Your task to perform on an android device: What's the US dollar exchange rate against the Brazilian Real? Image 0: 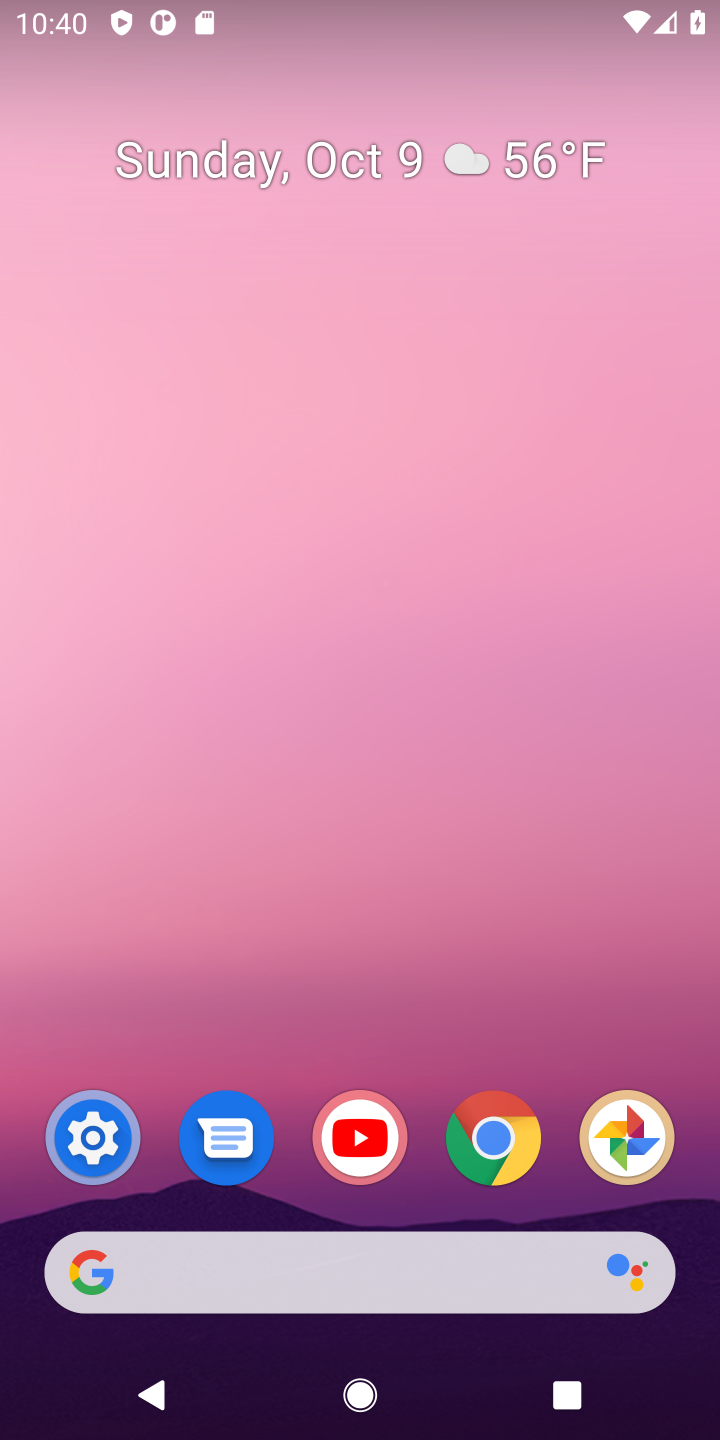
Step 0: drag from (368, 1057) to (714, 33)
Your task to perform on an android device: What's the US dollar exchange rate against the Brazilian Real? Image 1: 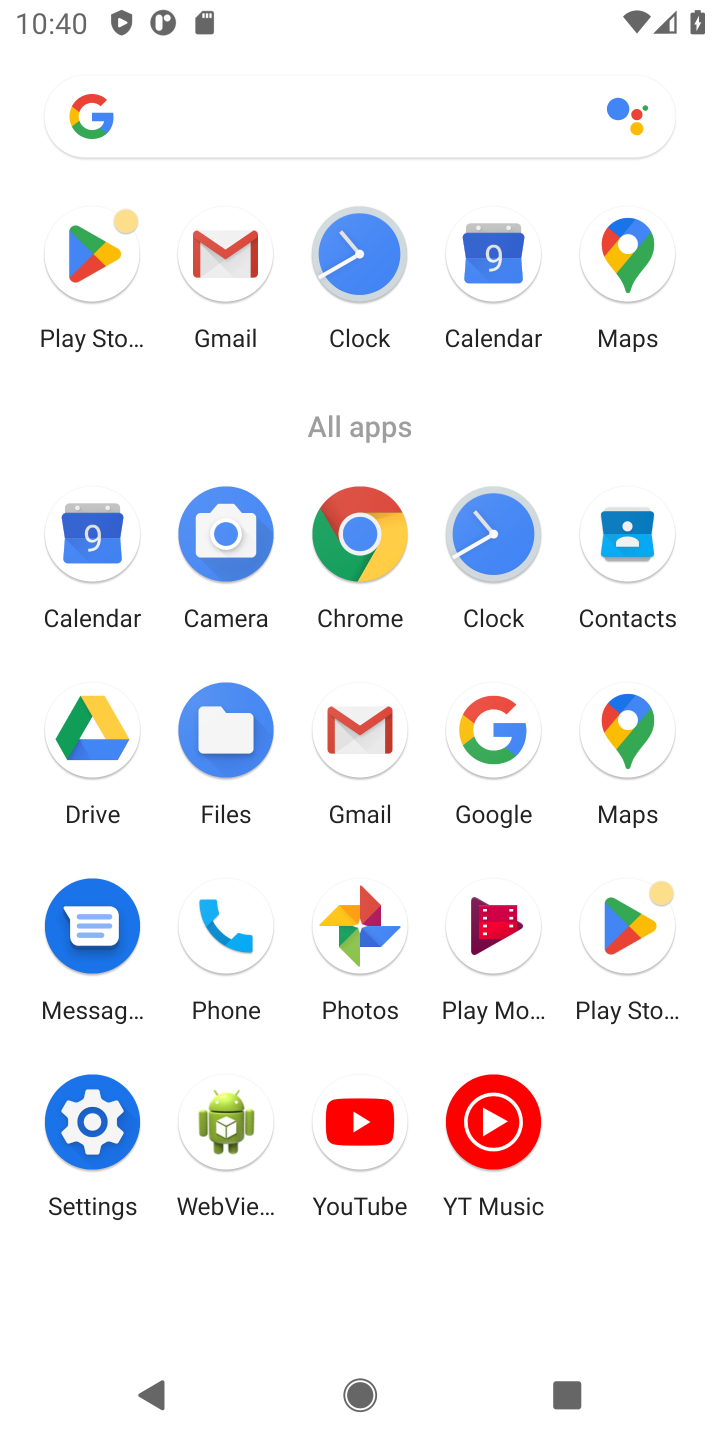
Step 1: click (379, 524)
Your task to perform on an android device: What's the US dollar exchange rate against the Brazilian Real? Image 2: 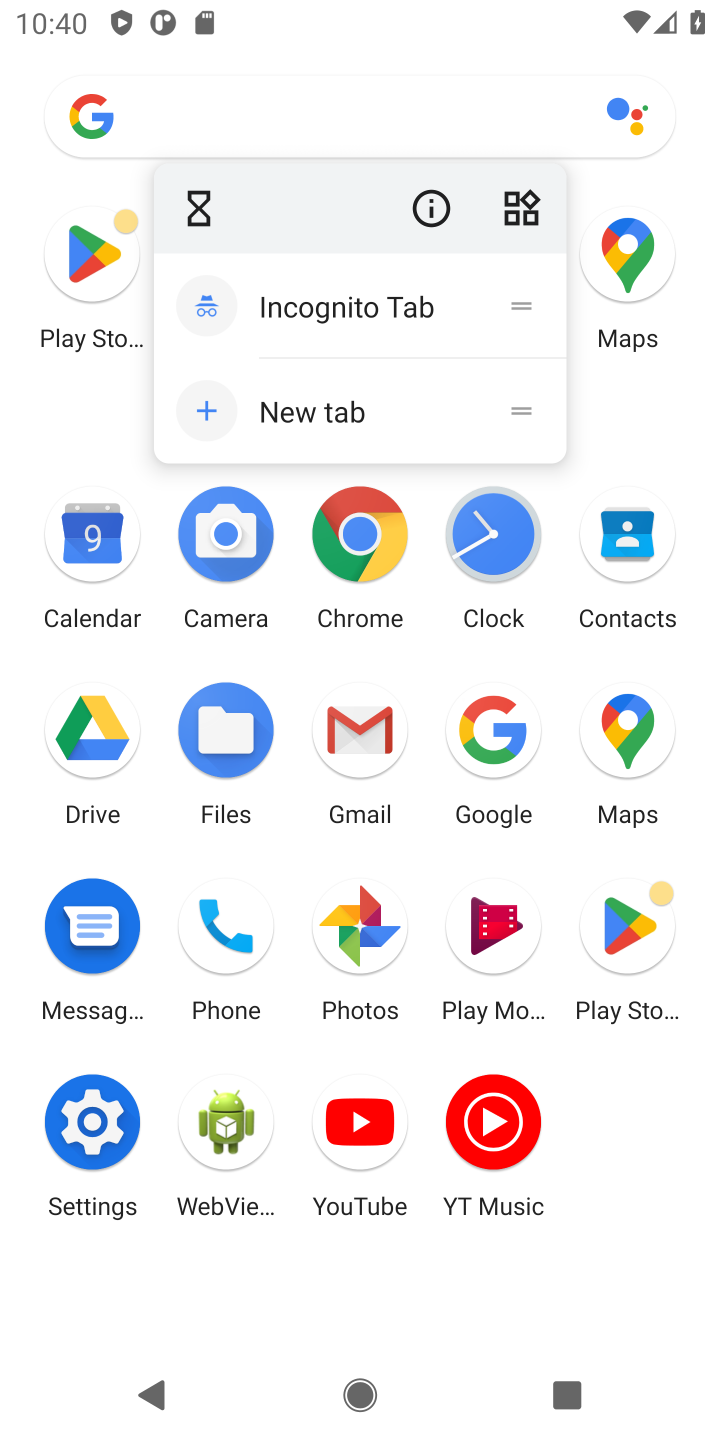
Step 2: click (356, 525)
Your task to perform on an android device: What's the US dollar exchange rate against the Brazilian Real? Image 3: 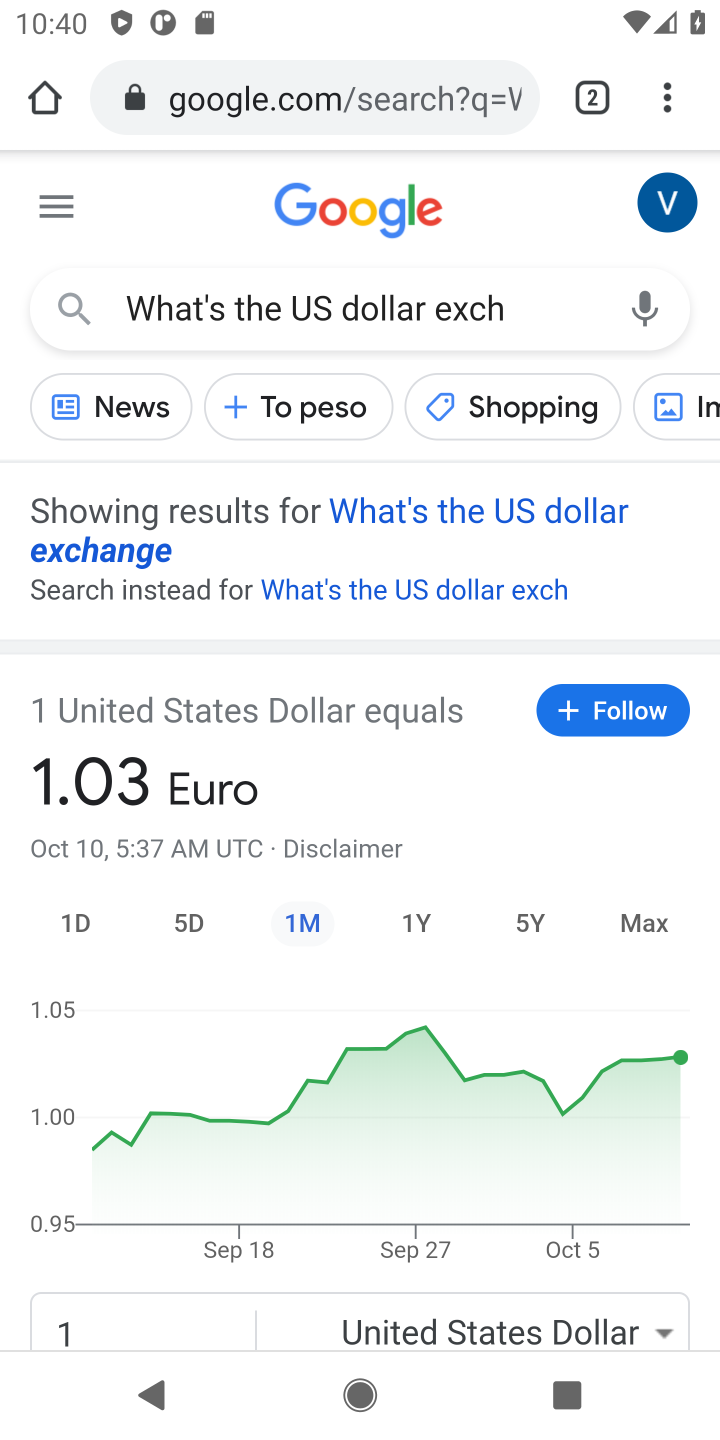
Step 3: click (214, 78)
Your task to perform on an android device: What's the US dollar exchange rate against the Brazilian Real? Image 4: 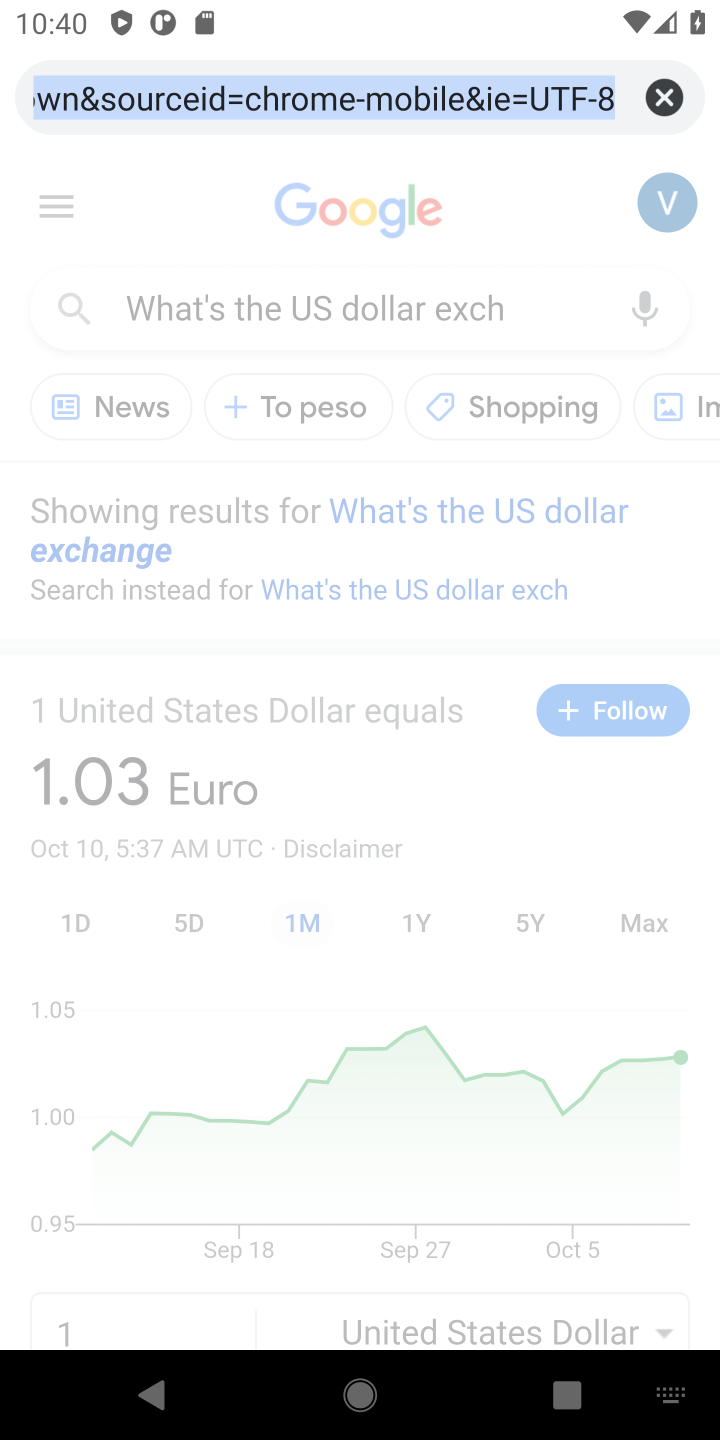
Step 4: click (675, 99)
Your task to perform on an android device: What's the US dollar exchange rate against the Brazilian Real? Image 5: 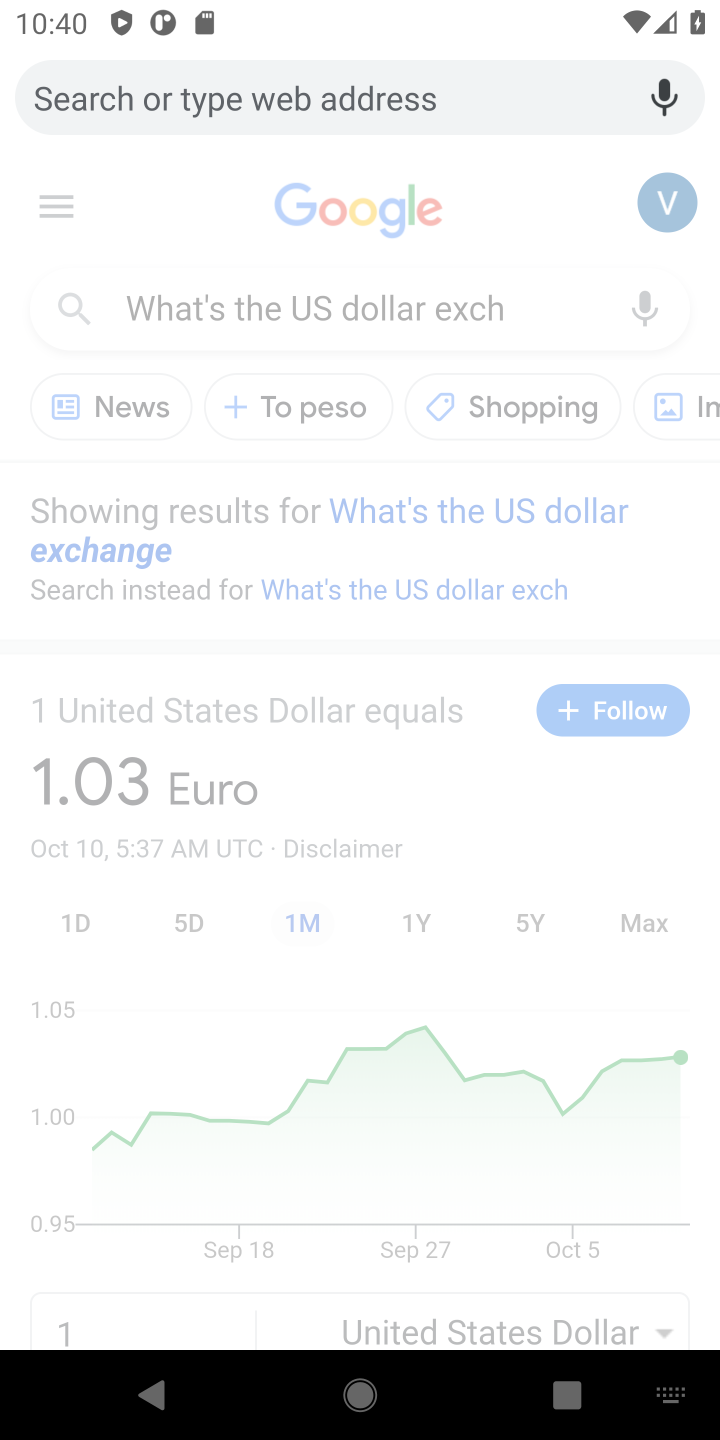
Step 5: type "What's the US dollar exchange rate against the Brazilian Real?"
Your task to perform on an android device: What's the US dollar exchange rate against the Brazilian Real? Image 6: 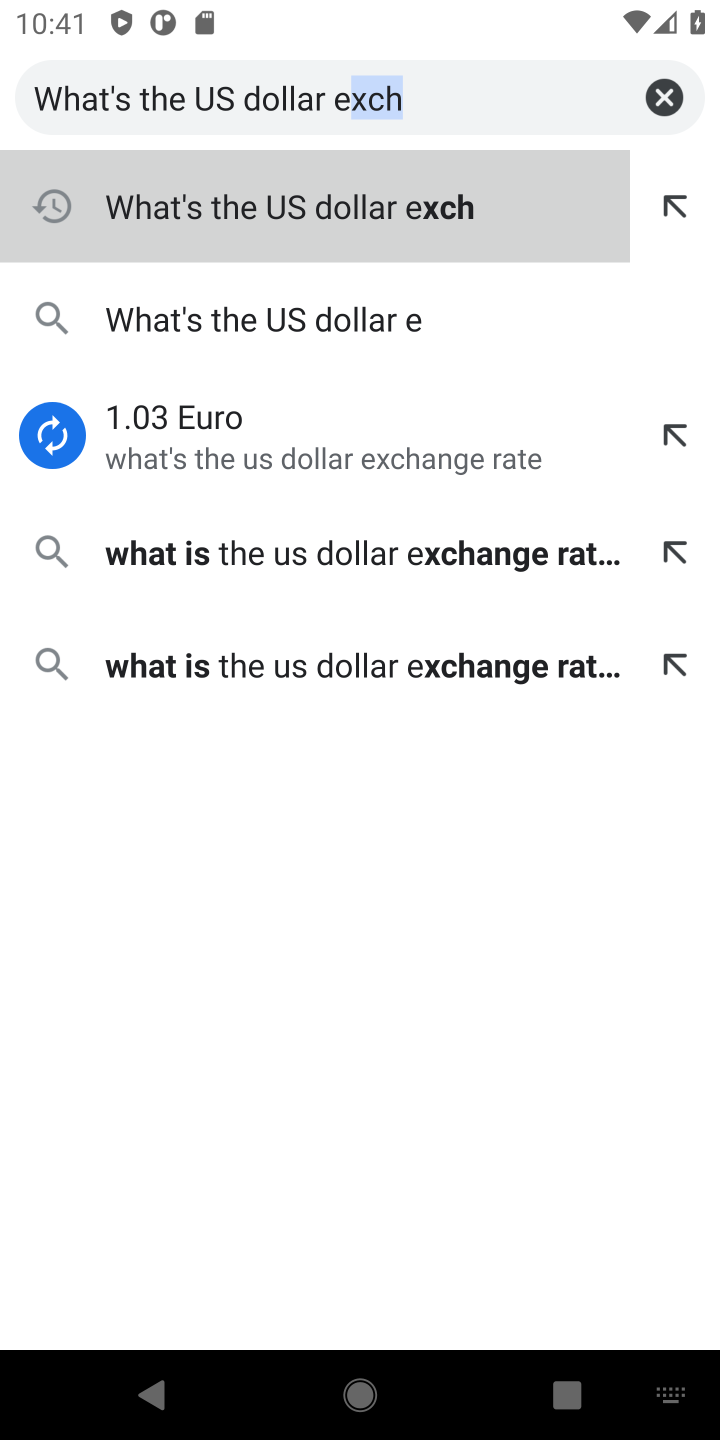
Step 6: click (336, 205)
Your task to perform on an android device: What's the US dollar exchange rate against the Brazilian Real? Image 7: 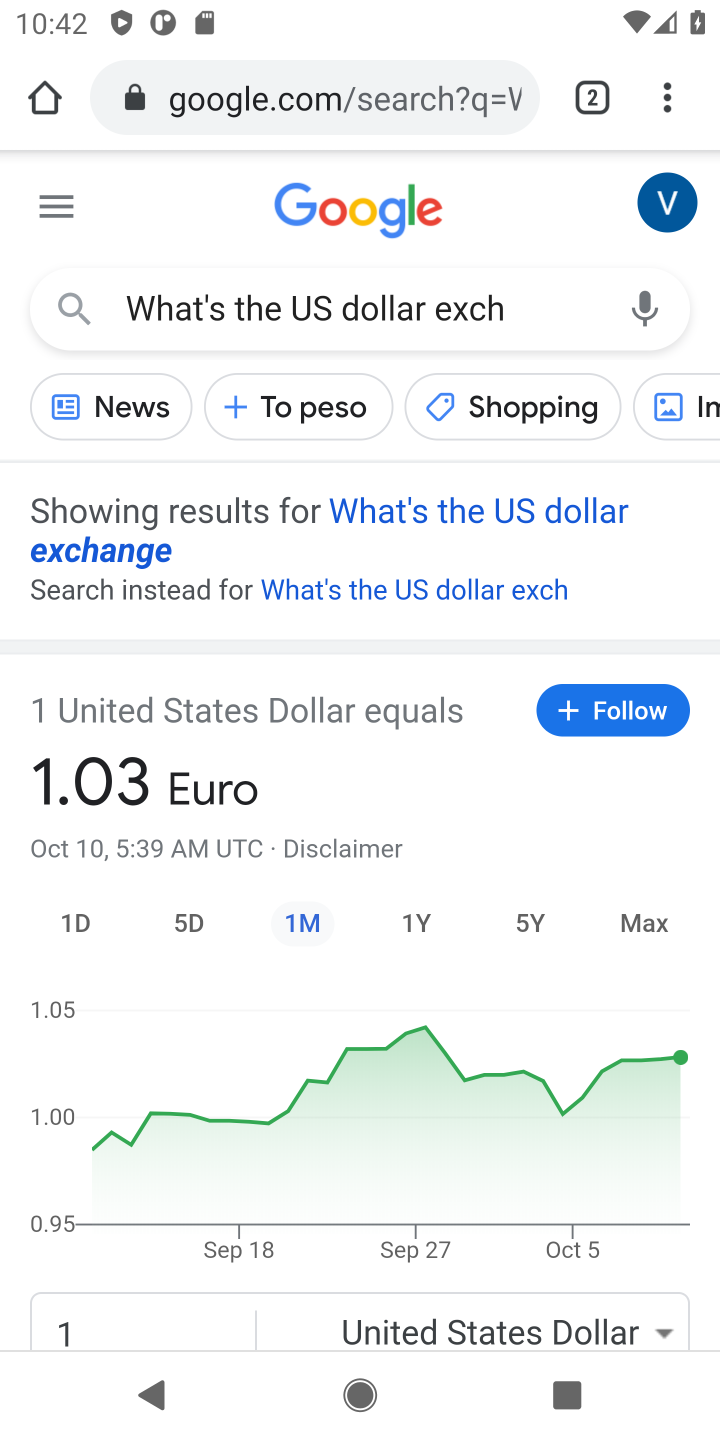
Step 7: click (321, 84)
Your task to perform on an android device: What's the US dollar exchange rate against the Brazilian Real? Image 8: 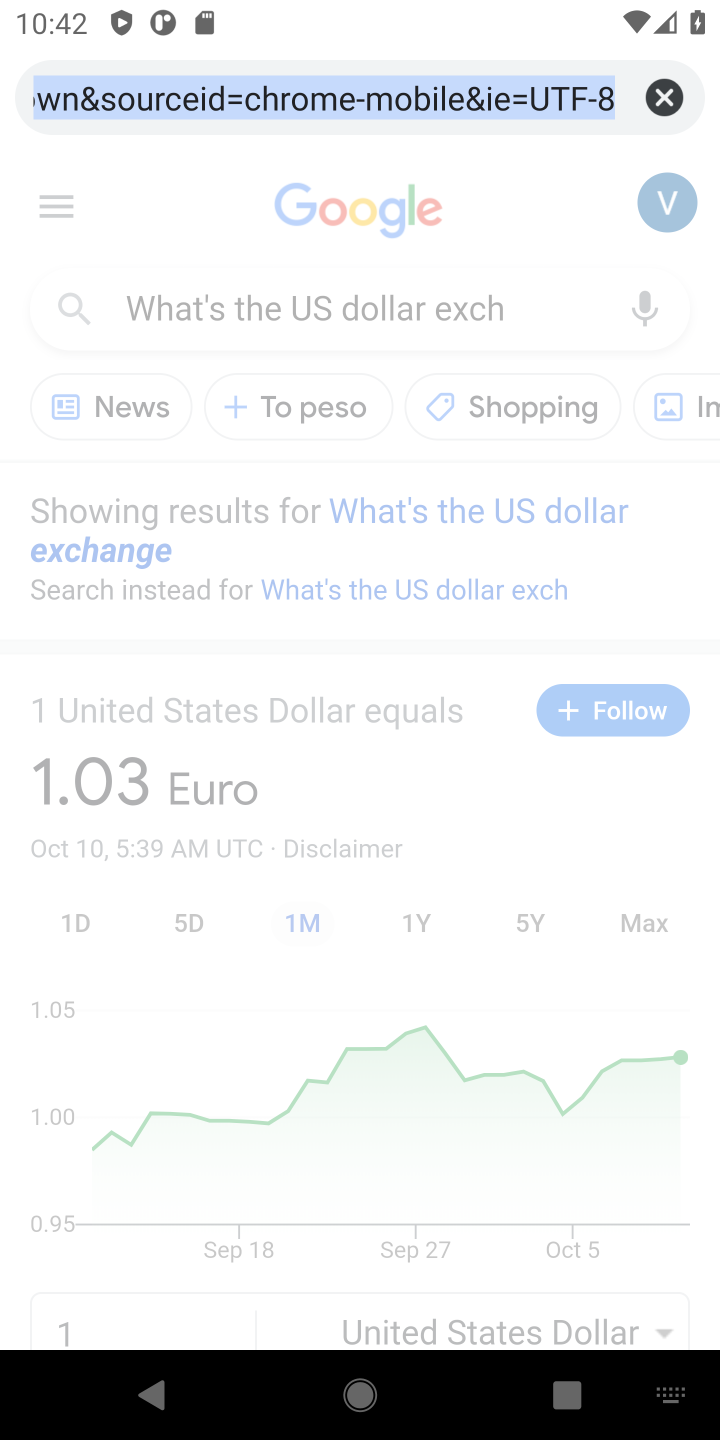
Step 8: click (665, 86)
Your task to perform on an android device: What's the US dollar exchange rate against the Brazilian Real? Image 9: 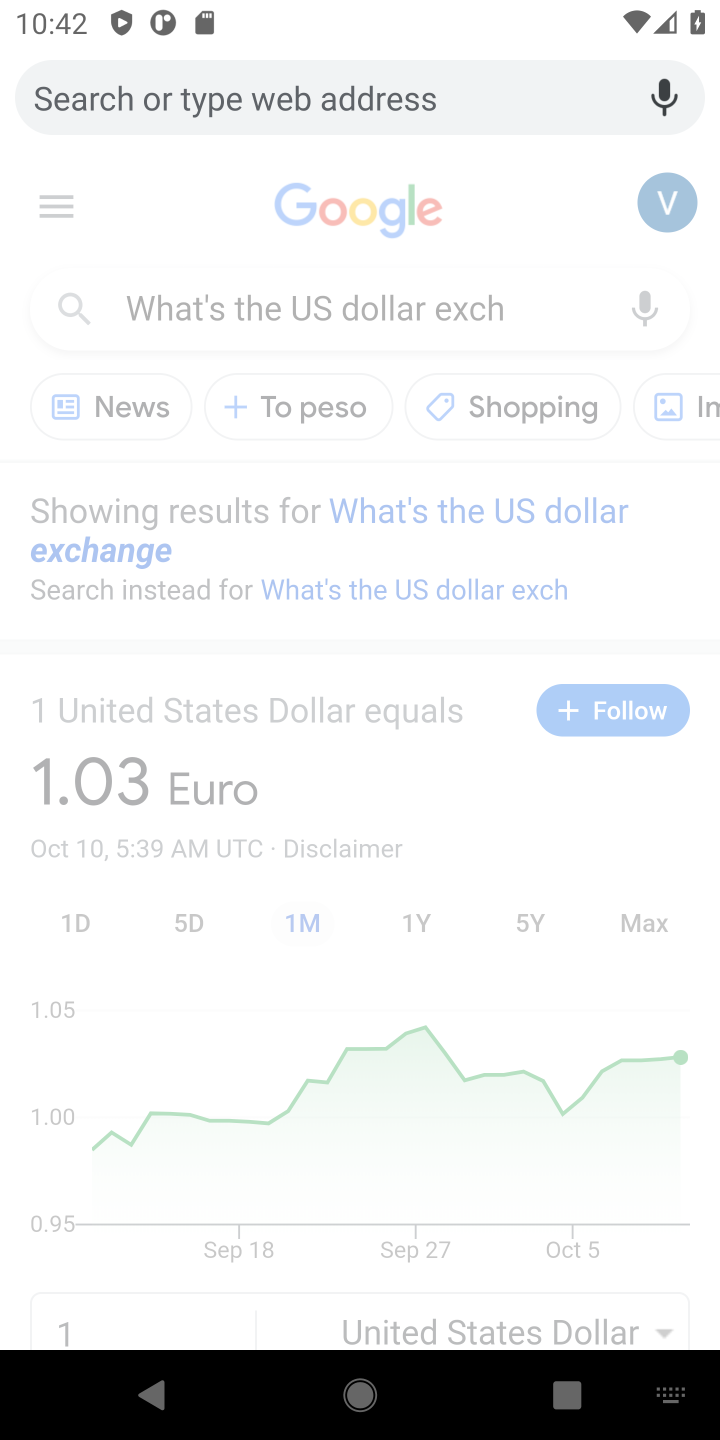
Step 9: type "What's the US dollar exchange rate against the Brazilian Real?"
Your task to perform on an android device: What's the US dollar exchange rate against the Brazilian Real? Image 10: 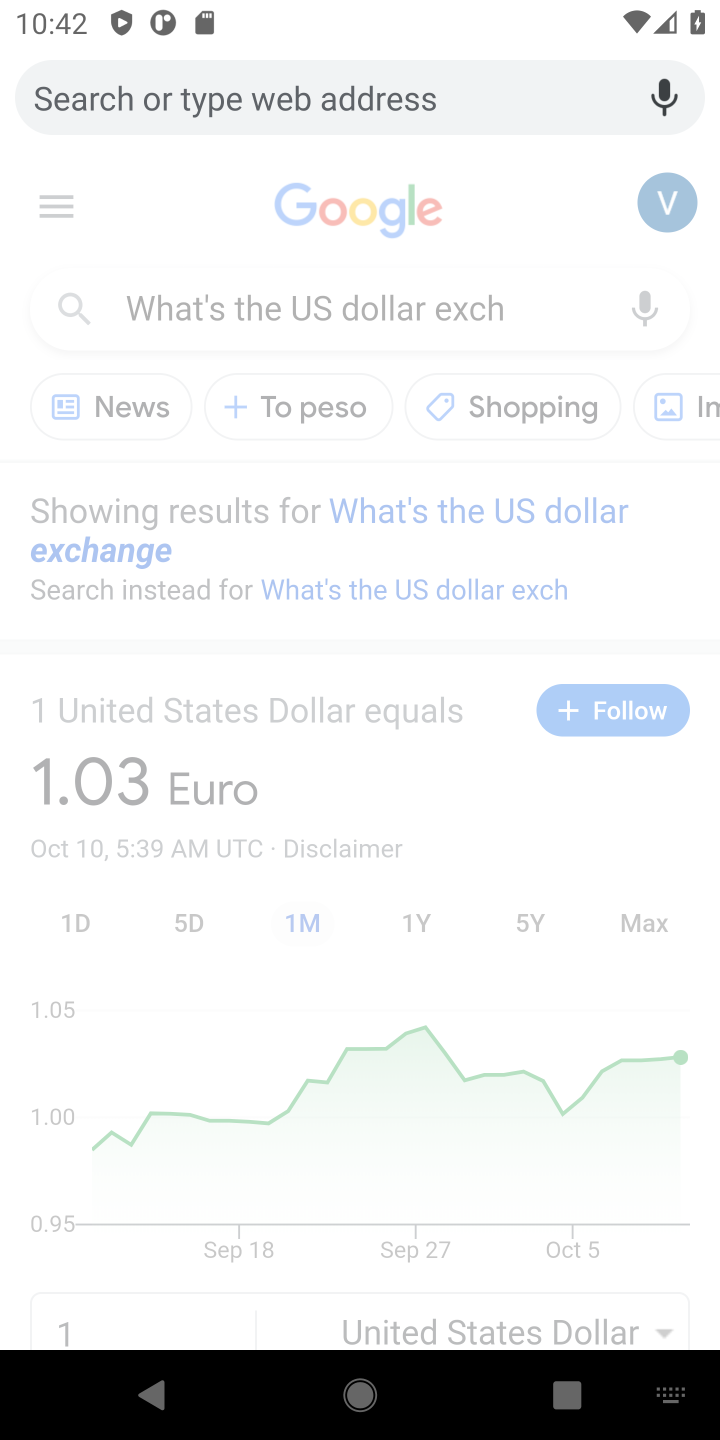
Step 10: click (161, 82)
Your task to perform on an android device: What's the US dollar exchange rate against the Brazilian Real? Image 11: 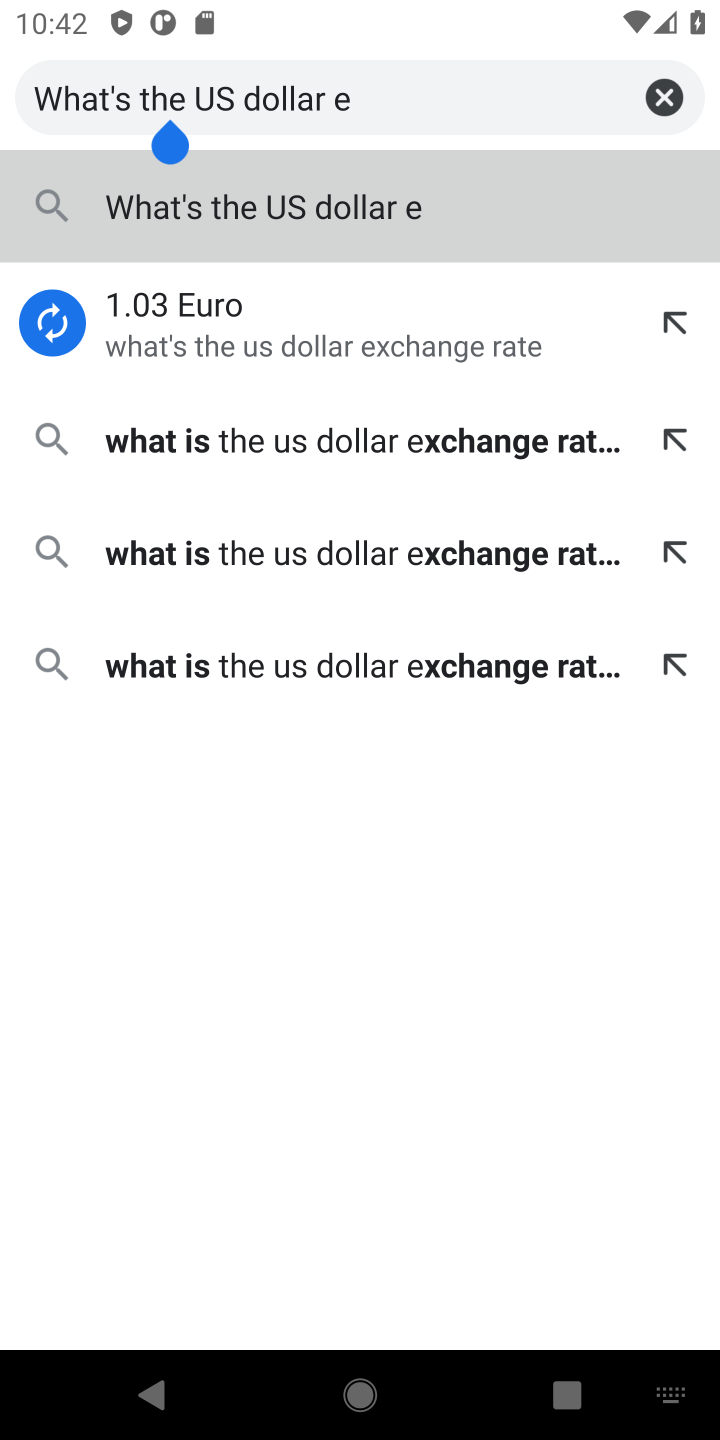
Step 11: click (407, 201)
Your task to perform on an android device: What's the US dollar exchange rate against the Brazilian Real? Image 12: 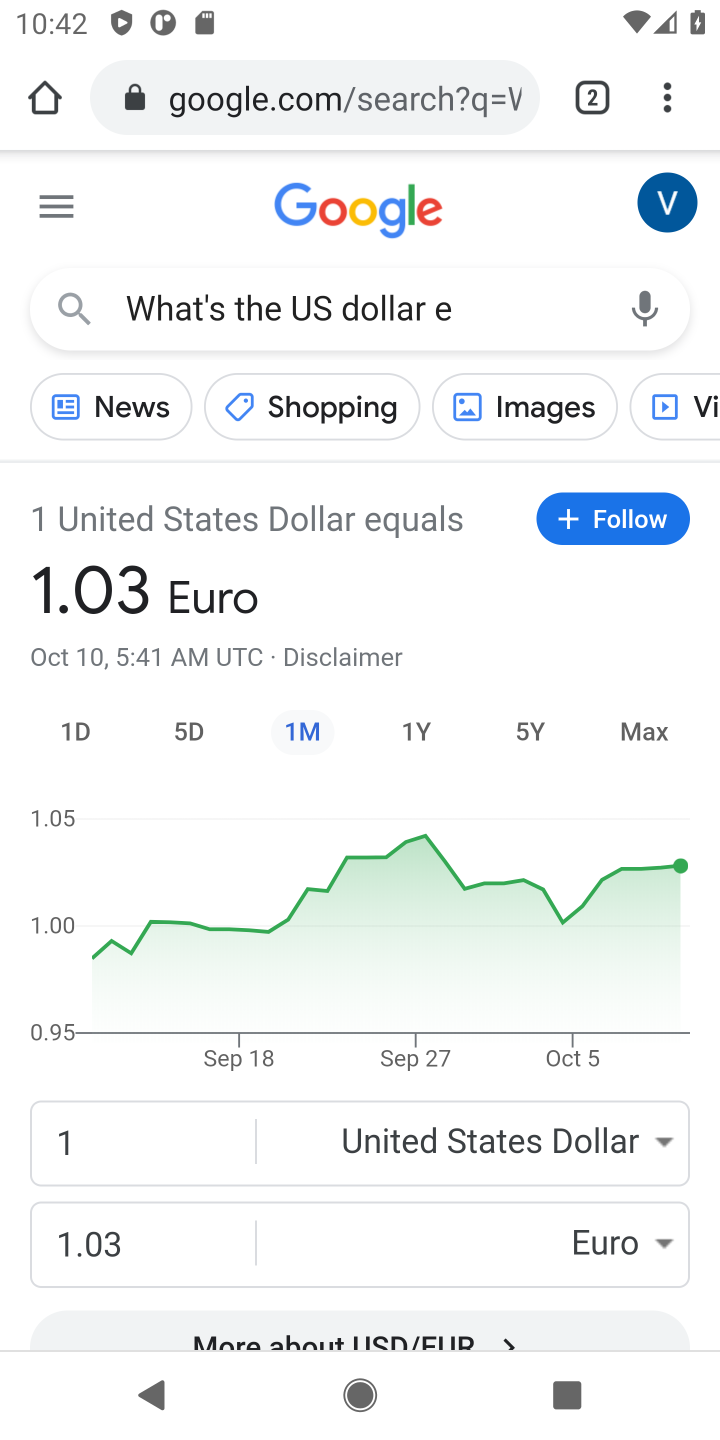
Step 12: task complete